Your task to perform on an android device: add a contact in the contacts app Image 0: 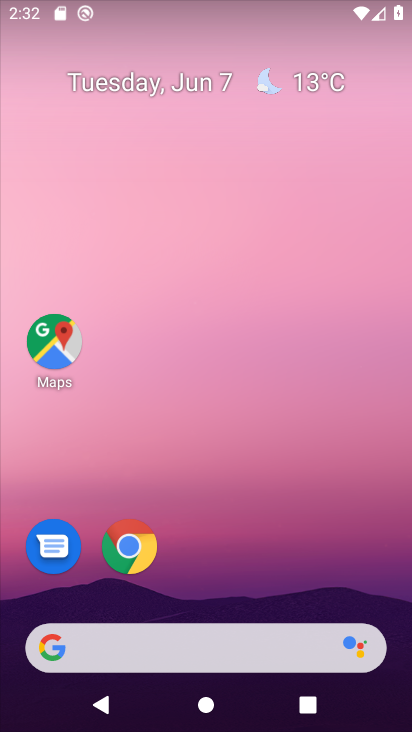
Step 0: drag from (314, 540) to (328, 255)
Your task to perform on an android device: add a contact in the contacts app Image 1: 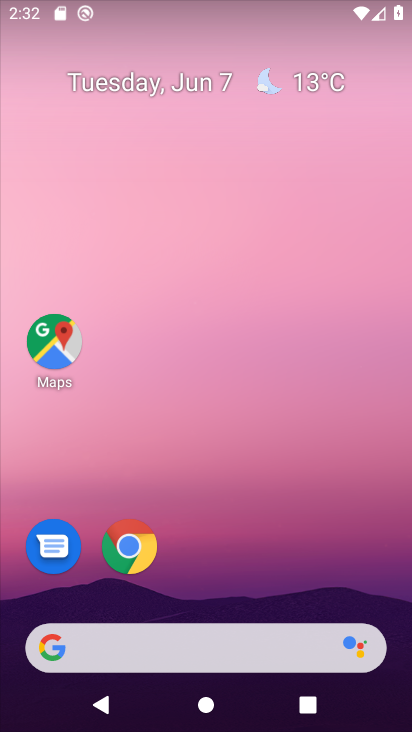
Step 1: drag from (329, 576) to (329, 203)
Your task to perform on an android device: add a contact in the contacts app Image 2: 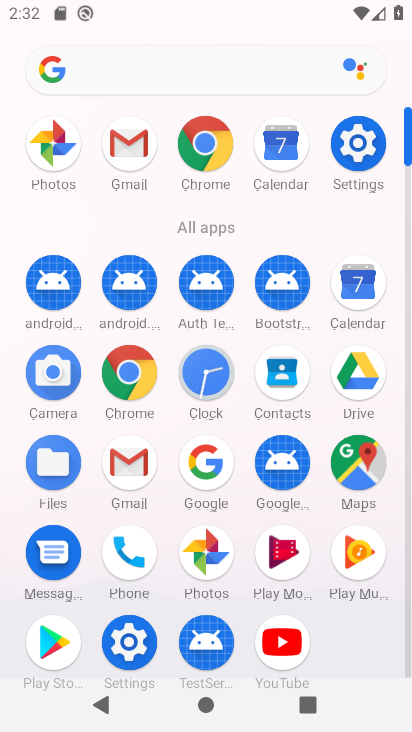
Step 2: click (276, 390)
Your task to perform on an android device: add a contact in the contacts app Image 3: 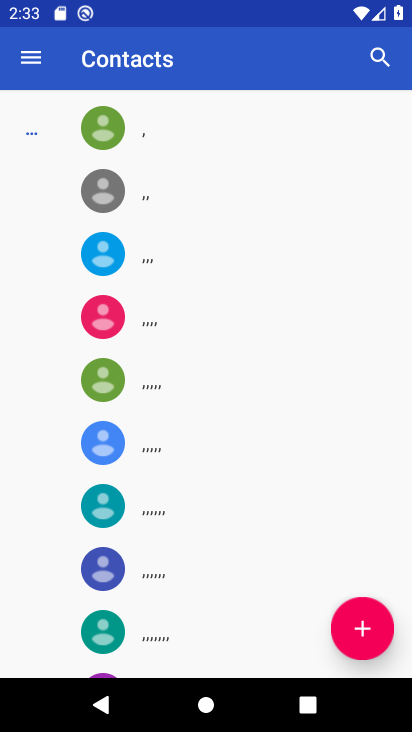
Step 3: click (369, 633)
Your task to perform on an android device: add a contact in the contacts app Image 4: 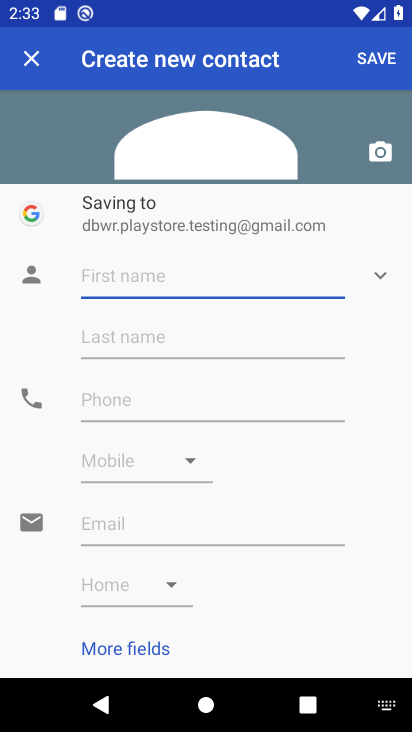
Step 4: click (111, 283)
Your task to perform on an android device: add a contact in the contacts app Image 5: 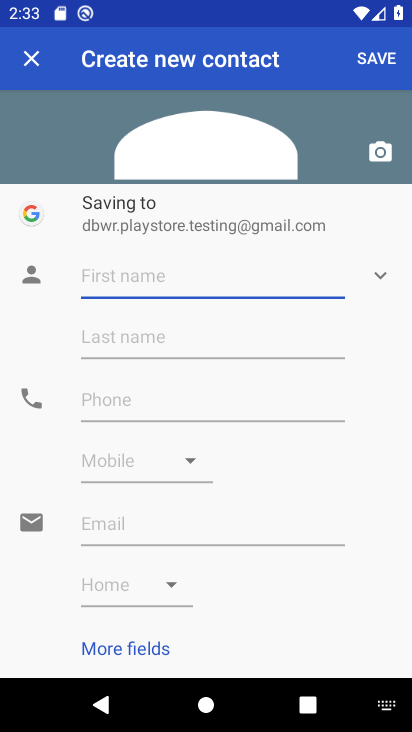
Step 5: type "ggggggg"
Your task to perform on an android device: add a contact in the contacts app Image 6: 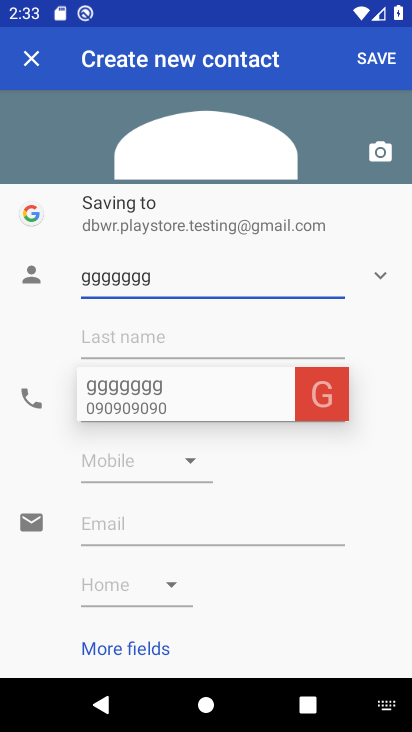
Step 6: click (386, 360)
Your task to perform on an android device: add a contact in the contacts app Image 7: 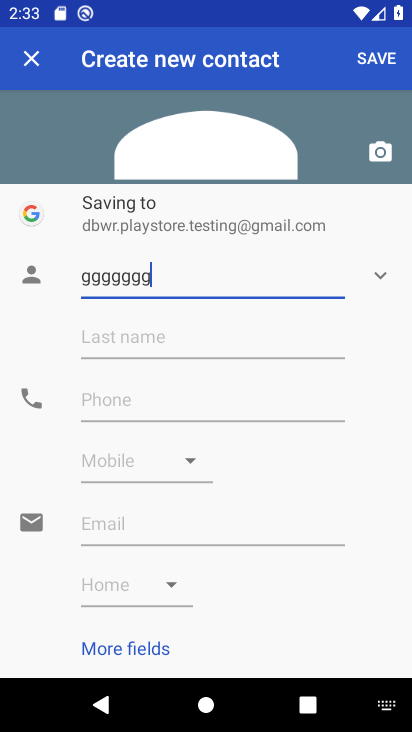
Step 7: click (131, 401)
Your task to perform on an android device: add a contact in the contacts app Image 8: 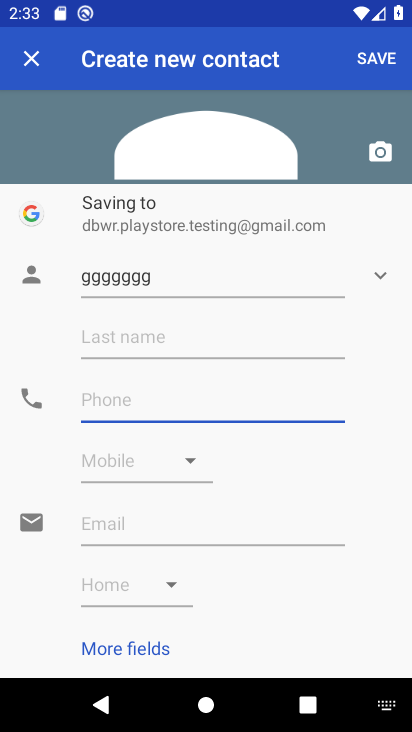
Step 8: type "333333"
Your task to perform on an android device: add a contact in the contacts app Image 9: 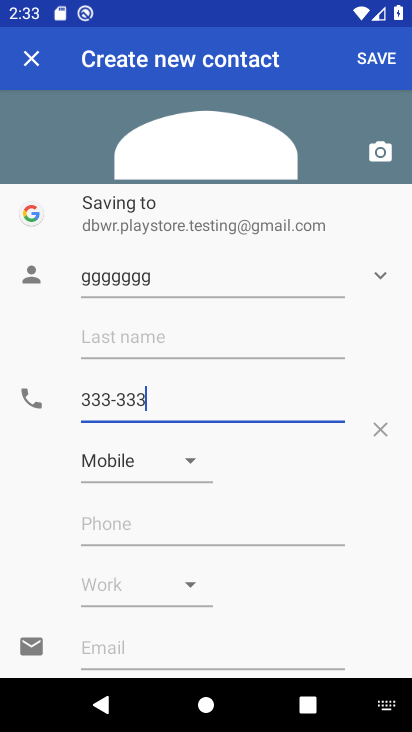
Step 9: click (361, 64)
Your task to perform on an android device: add a contact in the contacts app Image 10: 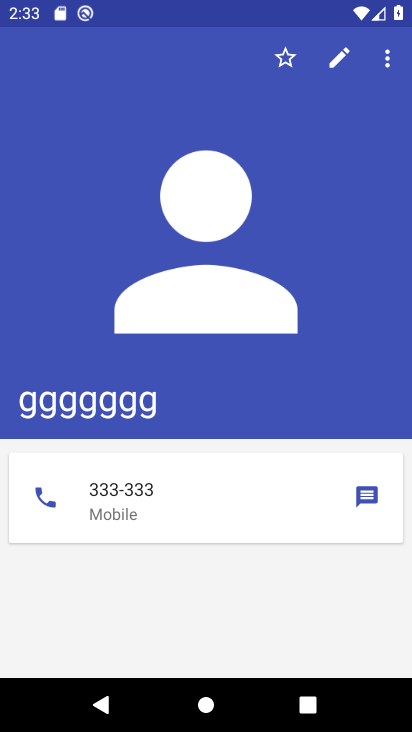
Step 10: task complete